Your task to perform on an android device: Go to calendar. Show me events next week Image 0: 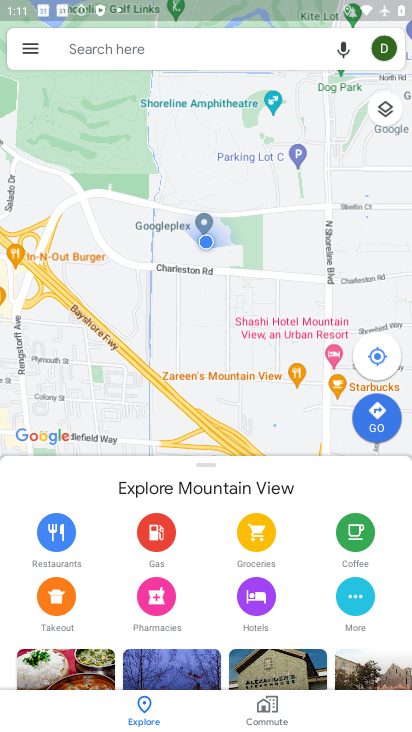
Step 0: press home button
Your task to perform on an android device: Go to calendar. Show me events next week Image 1: 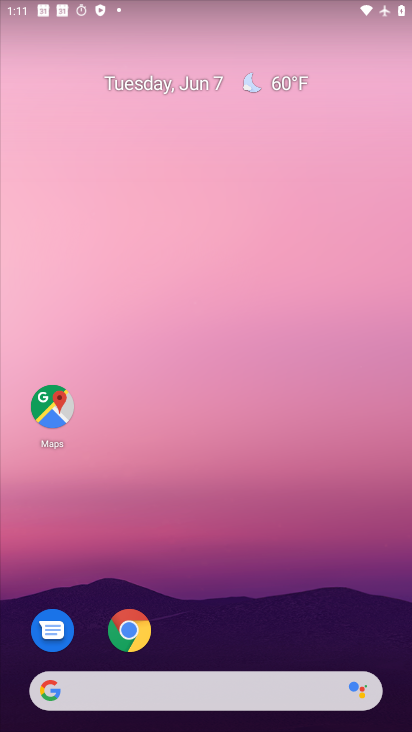
Step 1: drag from (369, 615) to (217, 69)
Your task to perform on an android device: Go to calendar. Show me events next week Image 2: 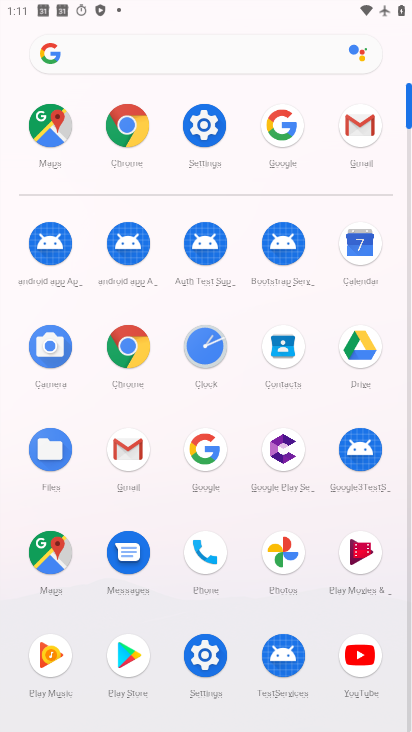
Step 2: click (349, 245)
Your task to perform on an android device: Go to calendar. Show me events next week Image 3: 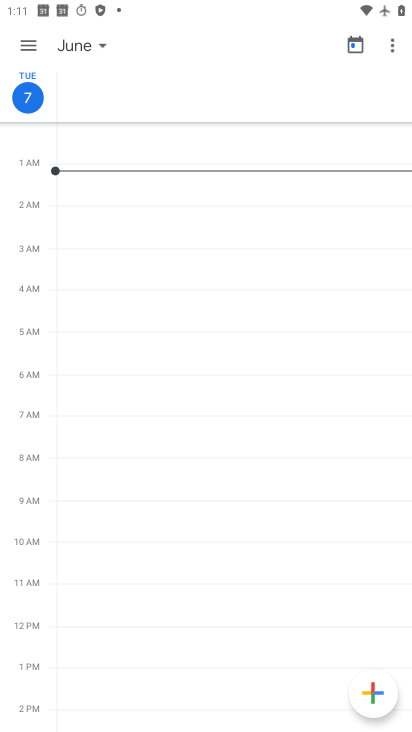
Step 3: task complete